Your task to perform on an android device: Open Reddit.com Image 0: 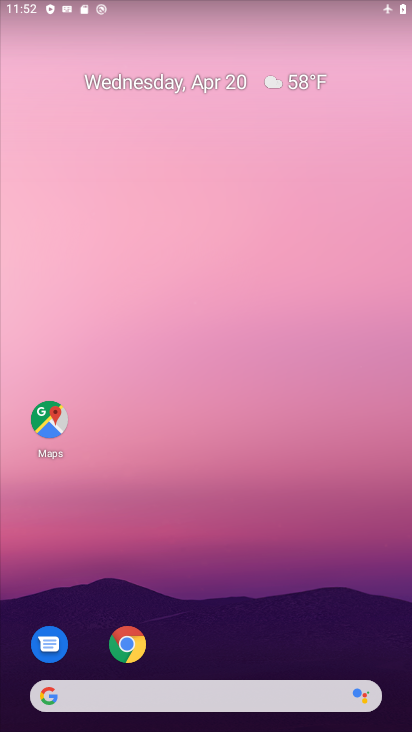
Step 0: click (129, 643)
Your task to perform on an android device: Open Reddit.com Image 1: 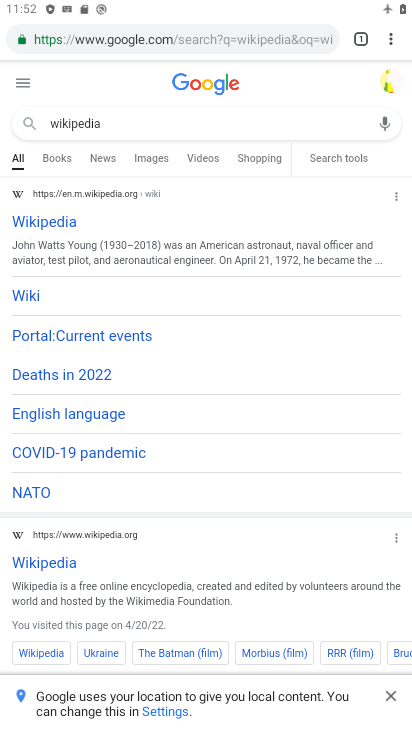
Step 1: click (126, 38)
Your task to perform on an android device: Open Reddit.com Image 2: 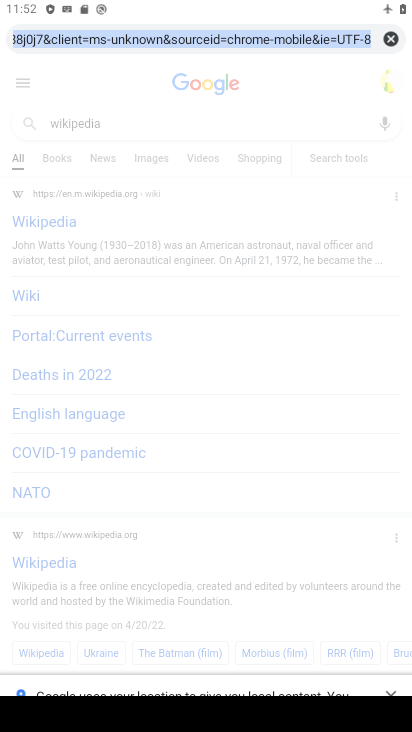
Step 2: type "Reddit.com"
Your task to perform on an android device: Open Reddit.com Image 3: 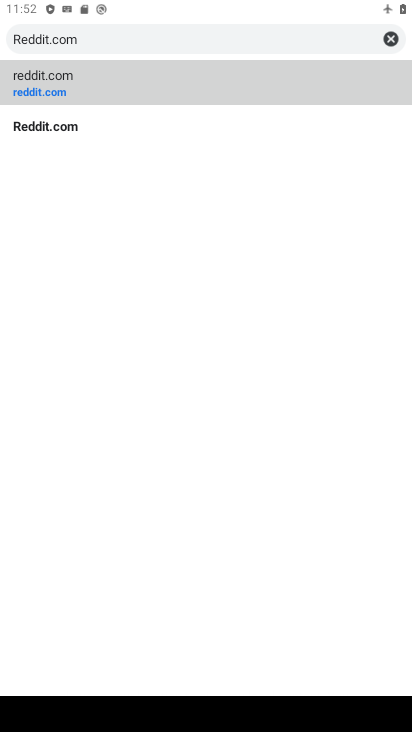
Step 3: click (46, 90)
Your task to perform on an android device: Open Reddit.com Image 4: 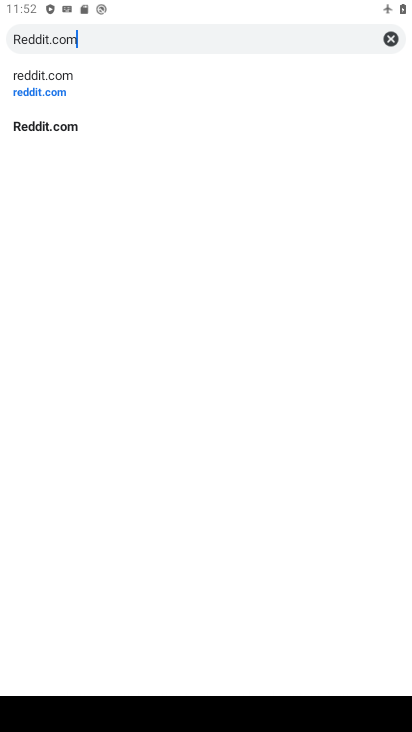
Step 4: click (63, 84)
Your task to perform on an android device: Open Reddit.com Image 5: 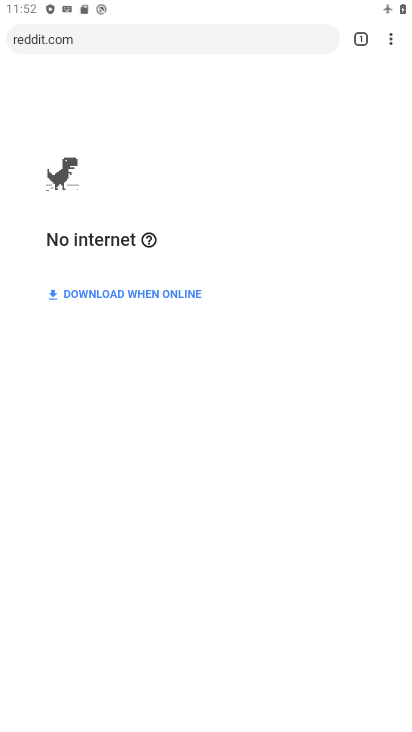
Step 5: task complete